Your task to perform on an android device: turn notification dots off Image 0: 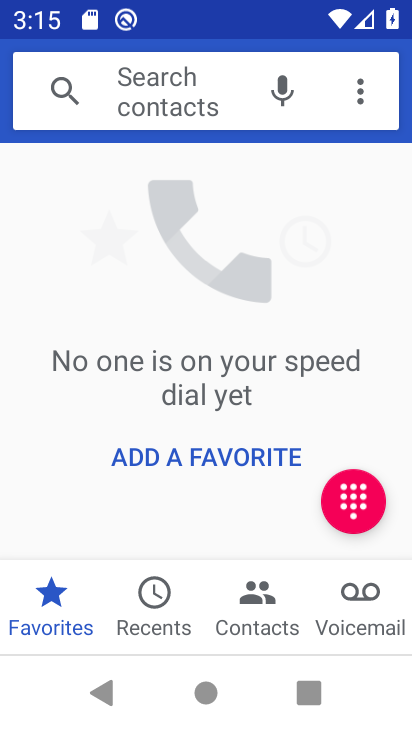
Step 0: press home button
Your task to perform on an android device: turn notification dots off Image 1: 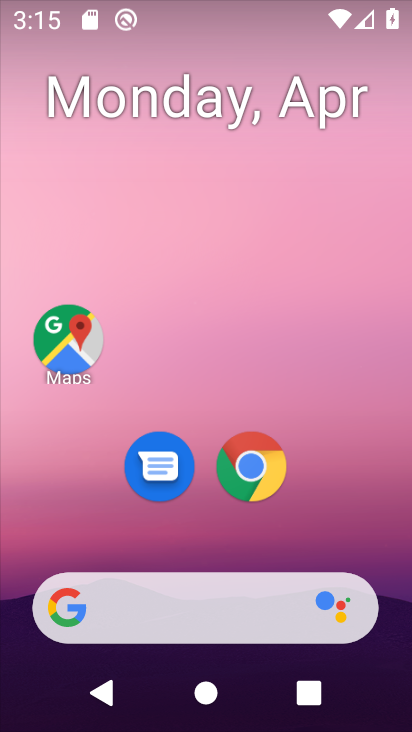
Step 1: drag from (224, 536) to (249, 267)
Your task to perform on an android device: turn notification dots off Image 2: 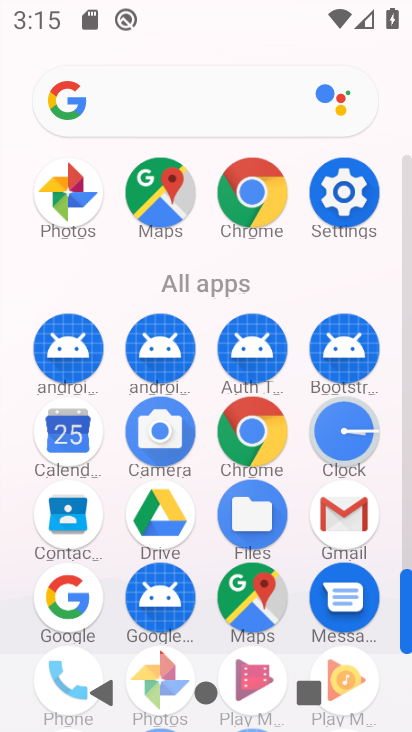
Step 2: click (356, 202)
Your task to perform on an android device: turn notification dots off Image 3: 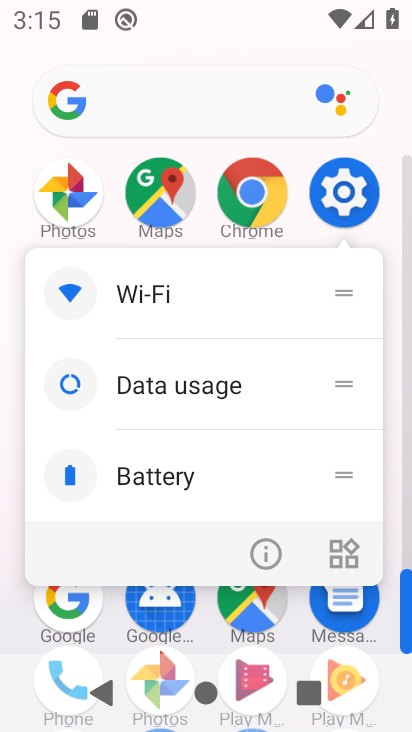
Step 3: click (287, 556)
Your task to perform on an android device: turn notification dots off Image 4: 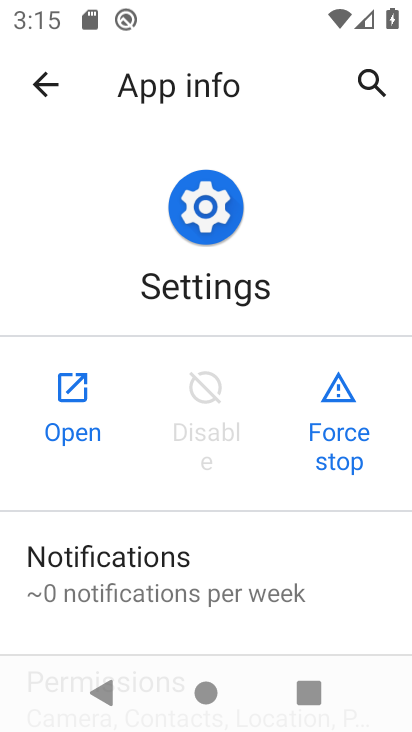
Step 4: click (84, 388)
Your task to perform on an android device: turn notification dots off Image 5: 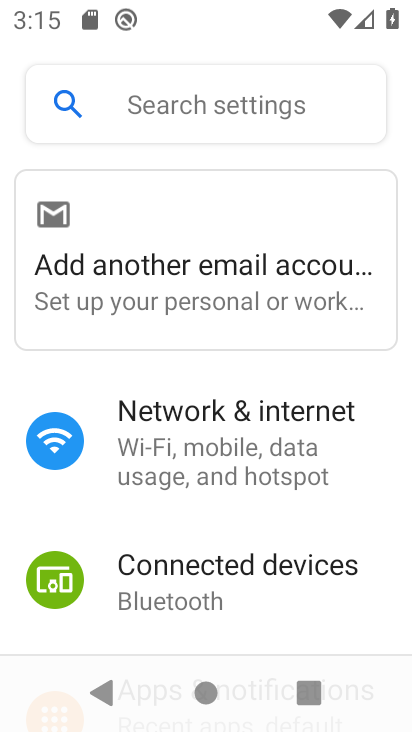
Step 5: drag from (222, 503) to (239, 185)
Your task to perform on an android device: turn notification dots off Image 6: 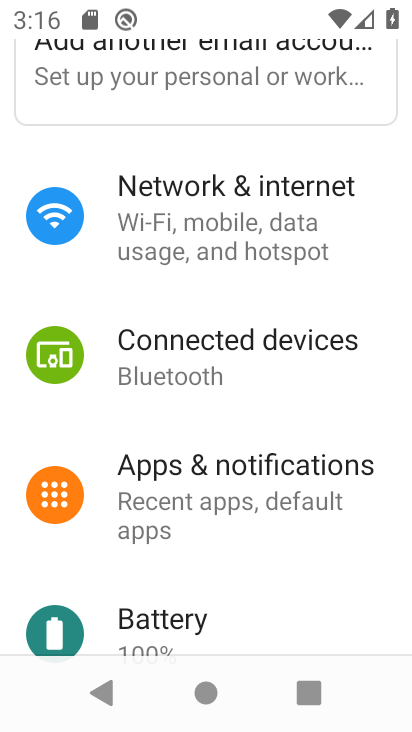
Step 6: click (273, 471)
Your task to perform on an android device: turn notification dots off Image 7: 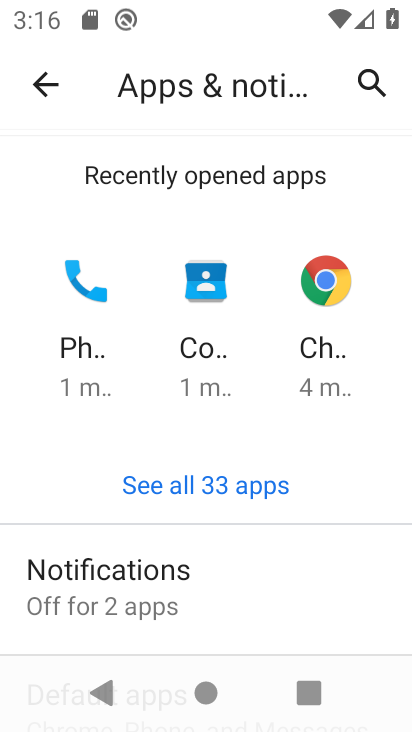
Step 7: click (233, 619)
Your task to perform on an android device: turn notification dots off Image 8: 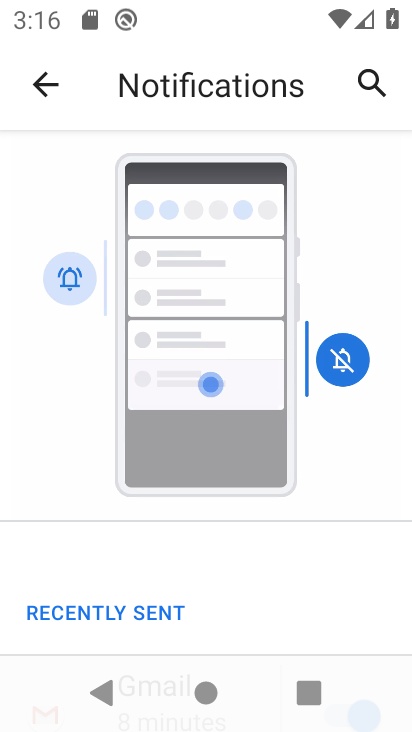
Step 8: drag from (233, 619) to (263, 209)
Your task to perform on an android device: turn notification dots off Image 9: 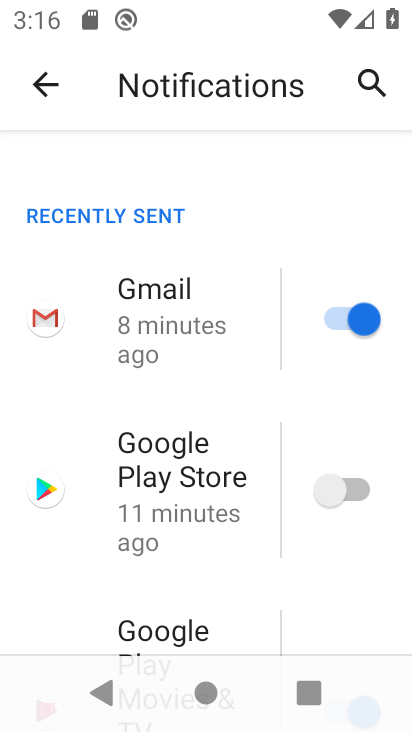
Step 9: drag from (265, 538) to (262, 234)
Your task to perform on an android device: turn notification dots off Image 10: 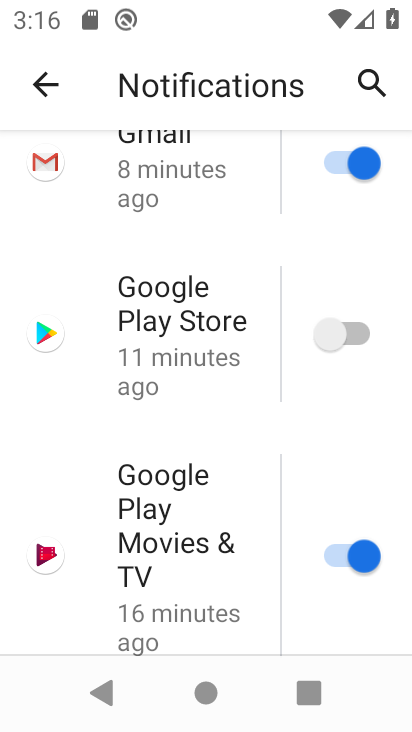
Step 10: drag from (225, 302) to (223, 208)
Your task to perform on an android device: turn notification dots off Image 11: 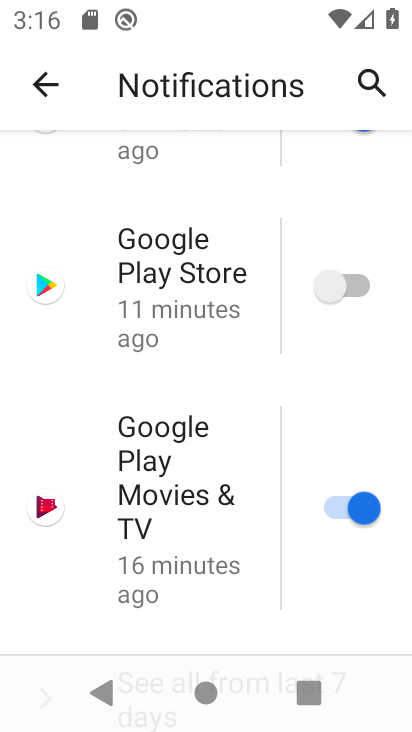
Step 11: drag from (201, 522) to (187, 169)
Your task to perform on an android device: turn notification dots off Image 12: 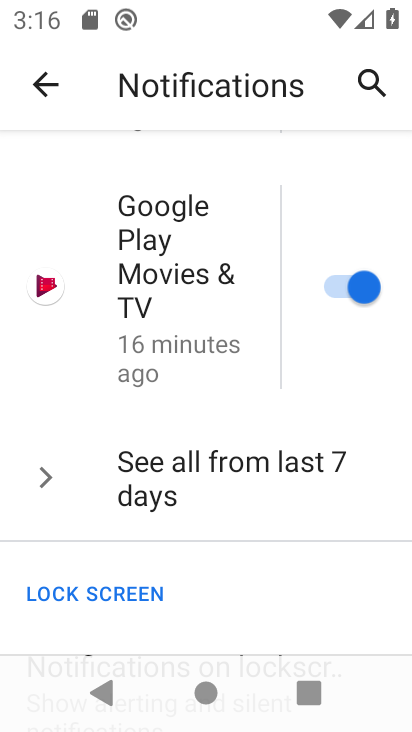
Step 12: drag from (203, 353) to (201, 172)
Your task to perform on an android device: turn notification dots off Image 13: 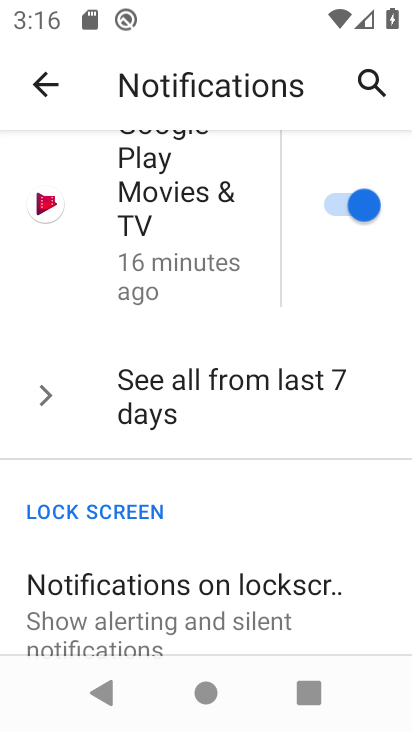
Step 13: drag from (249, 566) to (187, 121)
Your task to perform on an android device: turn notification dots off Image 14: 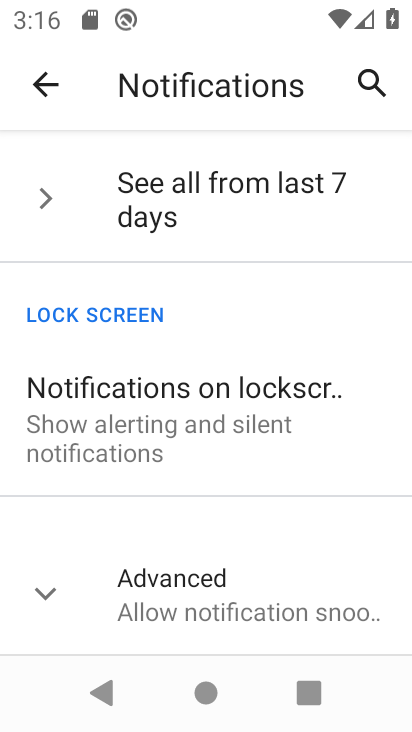
Step 14: click (218, 586)
Your task to perform on an android device: turn notification dots off Image 15: 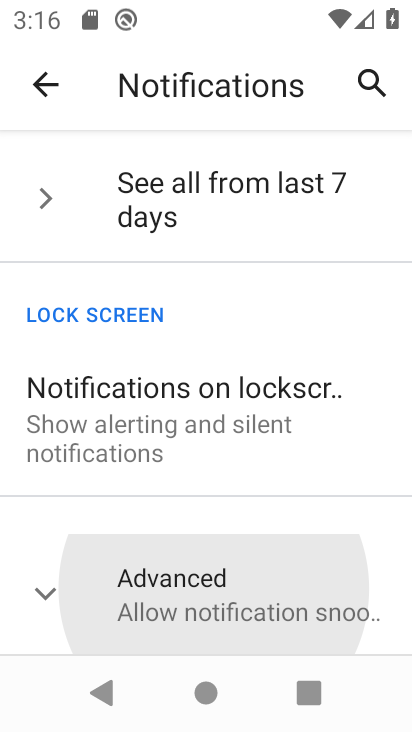
Step 15: drag from (217, 519) to (201, 82)
Your task to perform on an android device: turn notification dots off Image 16: 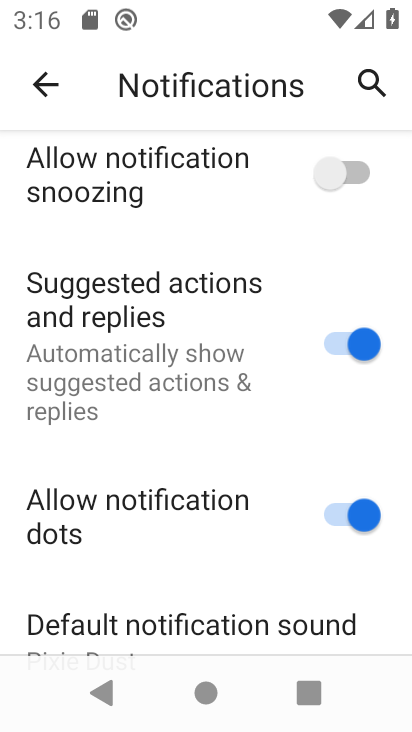
Step 16: click (356, 515)
Your task to perform on an android device: turn notification dots off Image 17: 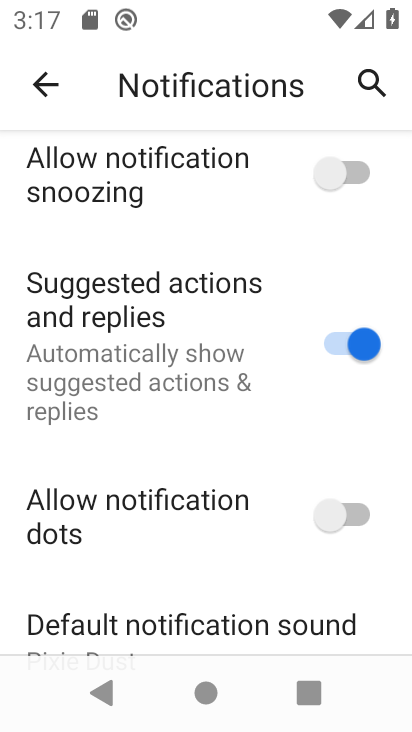
Step 17: task complete